Your task to perform on an android device: show emergency info Image 0: 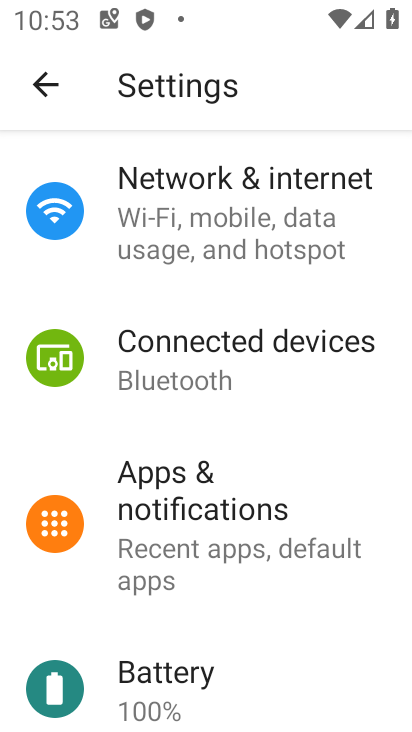
Step 0: drag from (271, 651) to (231, 188)
Your task to perform on an android device: show emergency info Image 1: 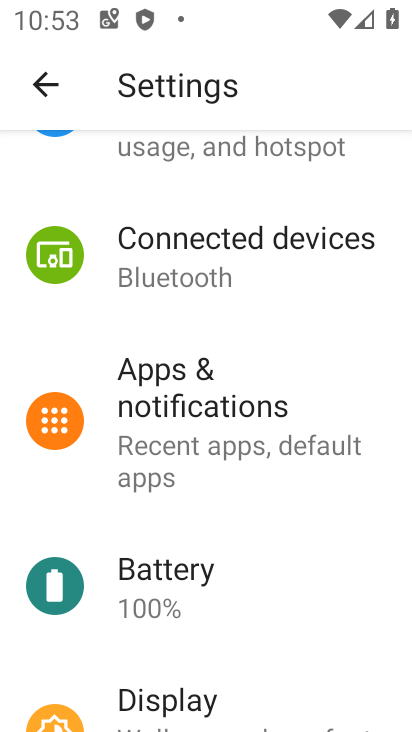
Step 1: task complete